Your task to perform on an android device: turn off smart reply in the gmail app Image 0: 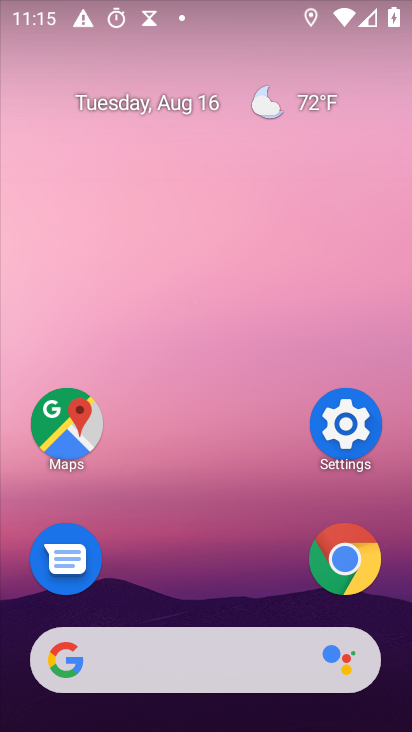
Step 0: drag from (246, 620) to (303, 94)
Your task to perform on an android device: turn off smart reply in the gmail app Image 1: 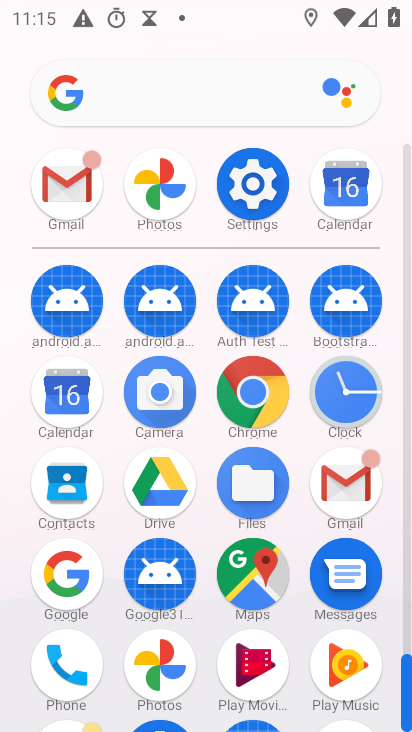
Step 1: click (68, 189)
Your task to perform on an android device: turn off smart reply in the gmail app Image 2: 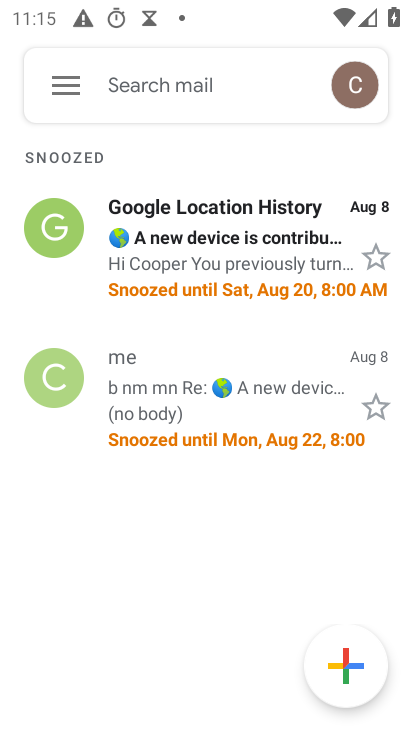
Step 2: click (68, 84)
Your task to perform on an android device: turn off smart reply in the gmail app Image 3: 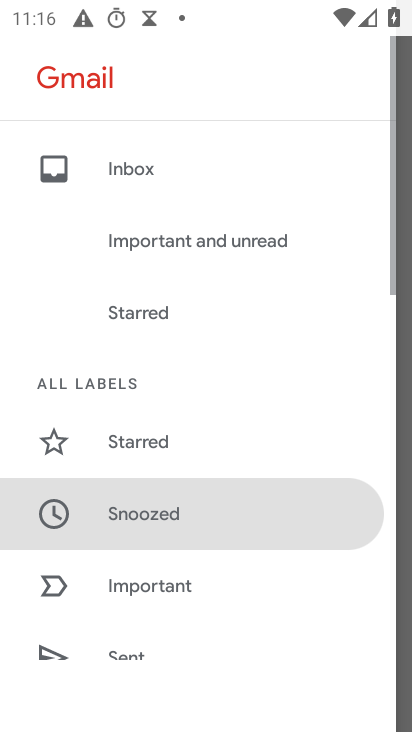
Step 3: drag from (218, 635) to (310, 49)
Your task to perform on an android device: turn off smart reply in the gmail app Image 4: 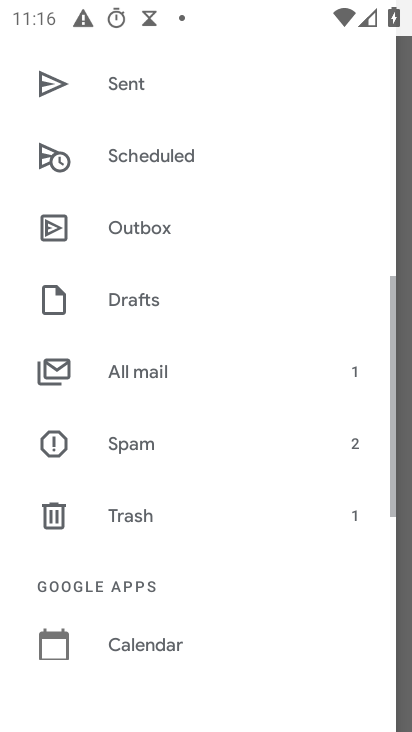
Step 4: drag from (235, 598) to (296, 156)
Your task to perform on an android device: turn off smart reply in the gmail app Image 5: 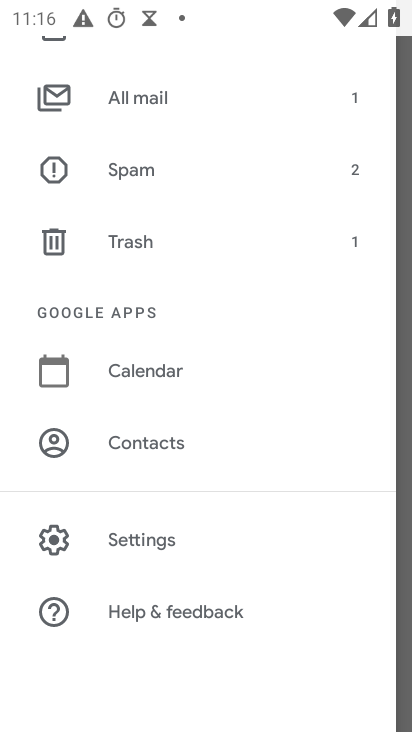
Step 5: click (143, 548)
Your task to perform on an android device: turn off smart reply in the gmail app Image 6: 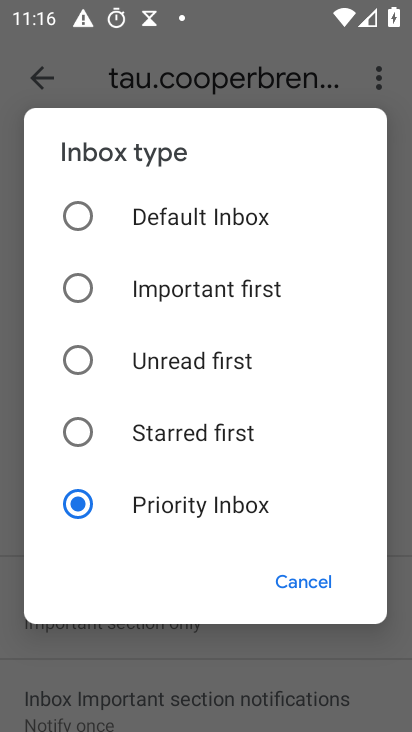
Step 6: click (282, 585)
Your task to perform on an android device: turn off smart reply in the gmail app Image 7: 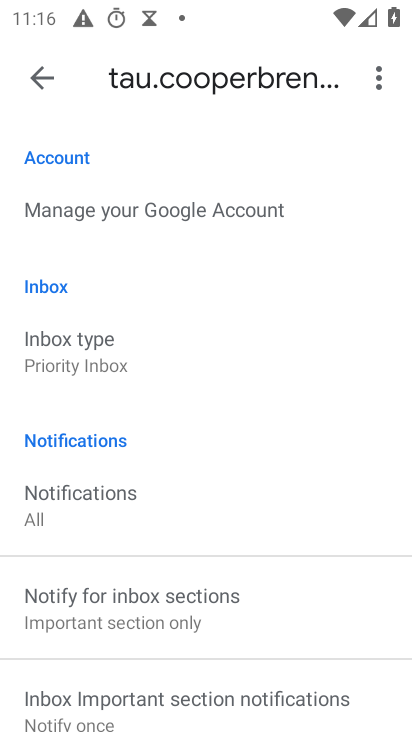
Step 7: drag from (208, 616) to (330, 174)
Your task to perform on an android device: turn off smart reply in the gmail app Image 8: 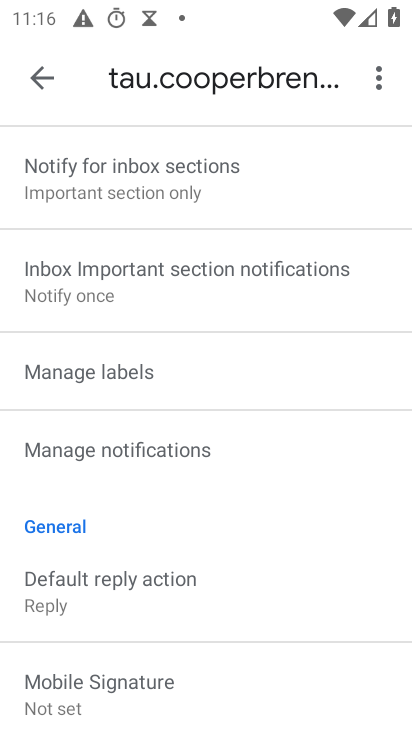
Step 8: drag from (239, 582) to (337, 176)
Your task to perform on an android device: turn off smart reply in the gmail app Image 9: 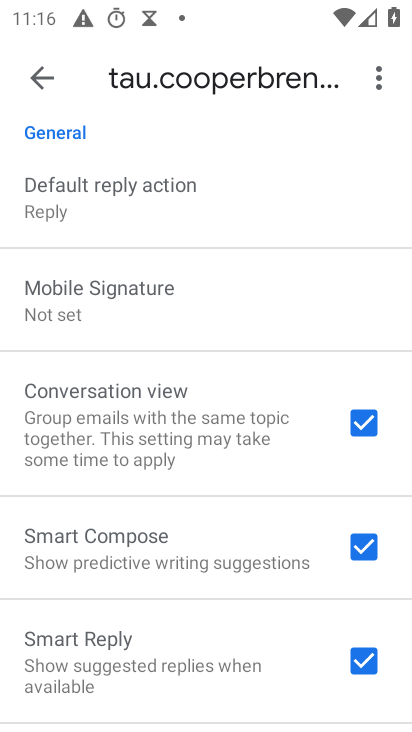
Step 9: click (362, 661)
Your task to perform on an android device: turn off smart reply in the gmail app Image 10: 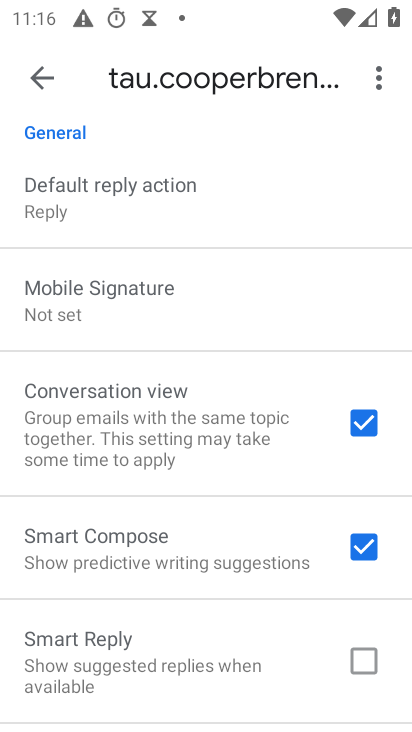
Step 10: task complete